Your task to perform on an android device: Open location settings Image 0: 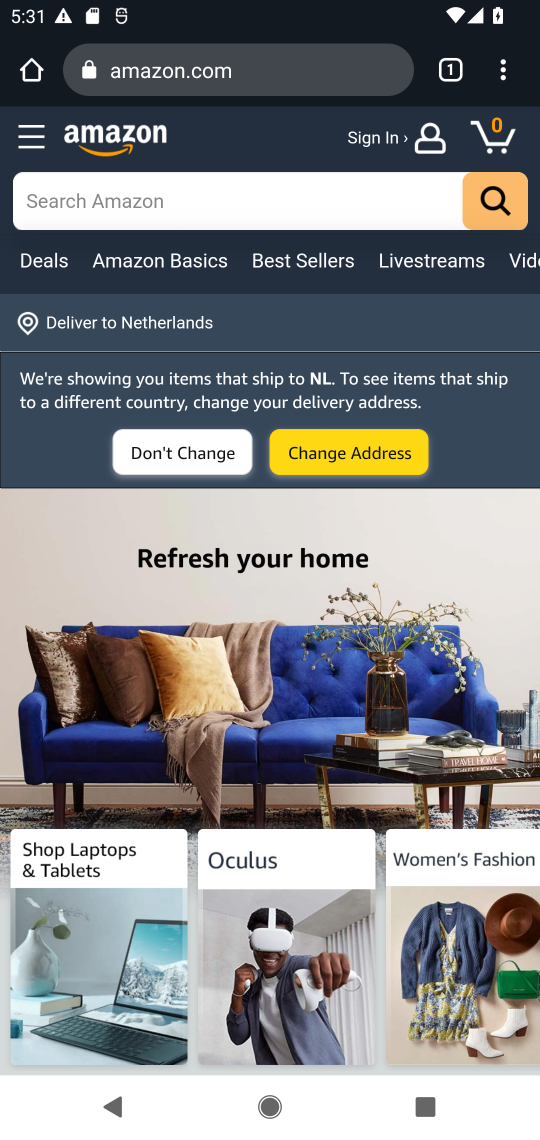
Step 0: press home button
Your task to perform on an android device: Open location settings Image 1: 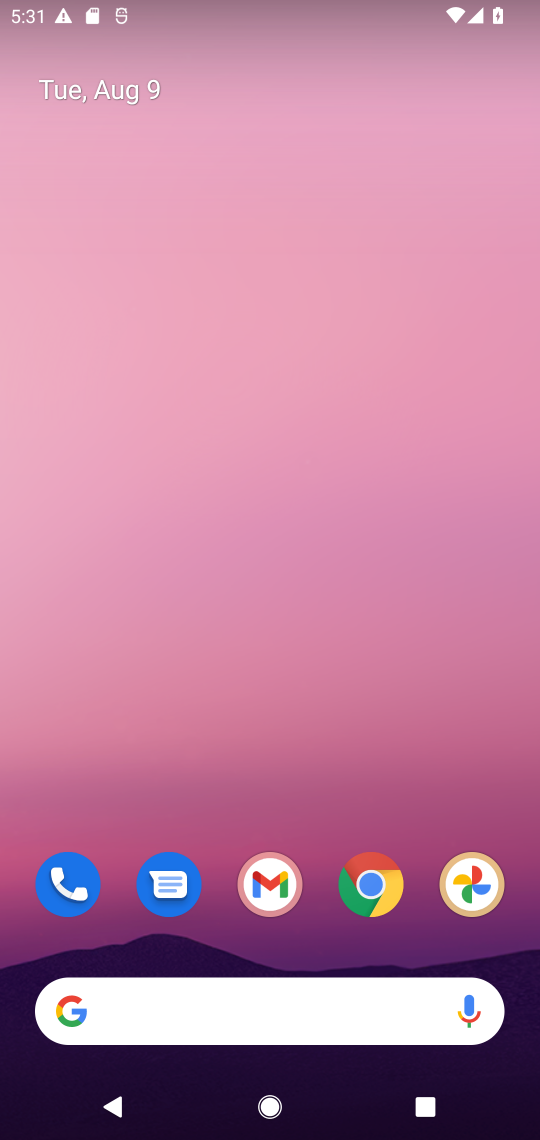
Step 1: drag from (295, 1013) to (360, 65)
Your task to perform on an android device: Open location settings Image 2: 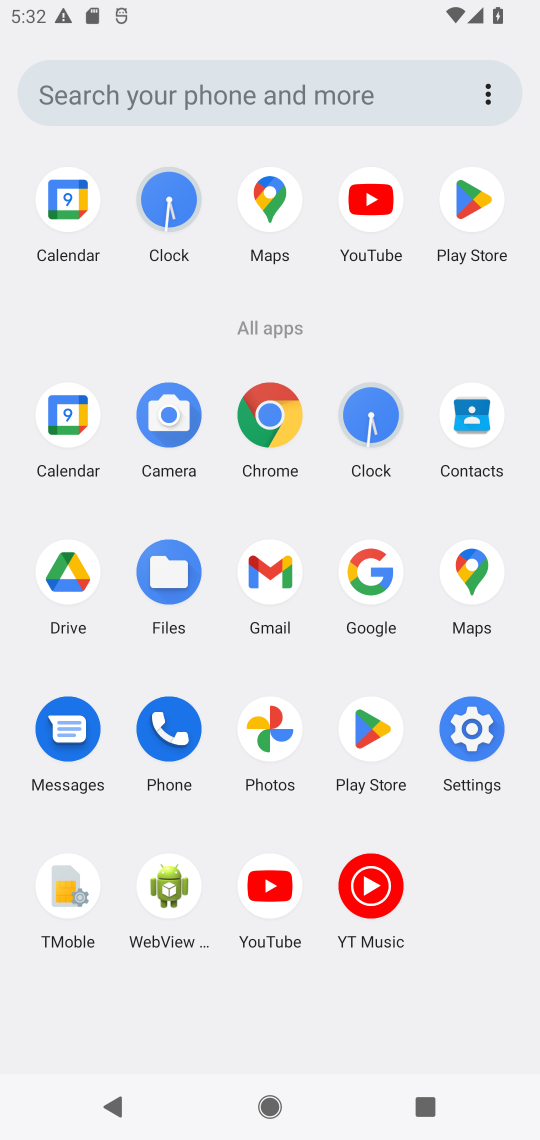
Step 2: click (473, 723)
Your task to perform on an android device: Open location settings Image 3: 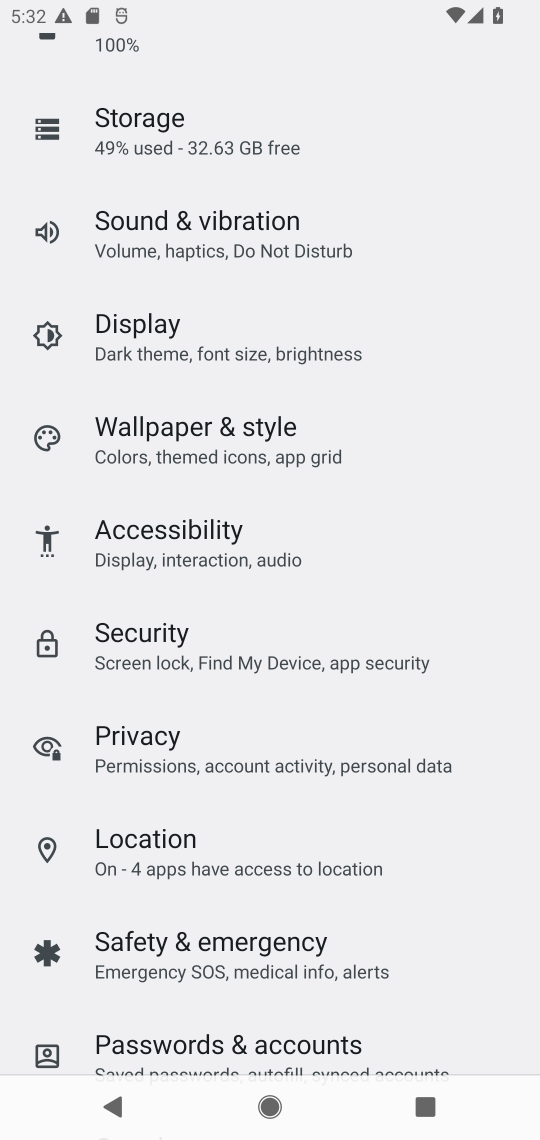
Step 3: click (275, 867)
Your task to perform on an android device: Open location settings Image 4: 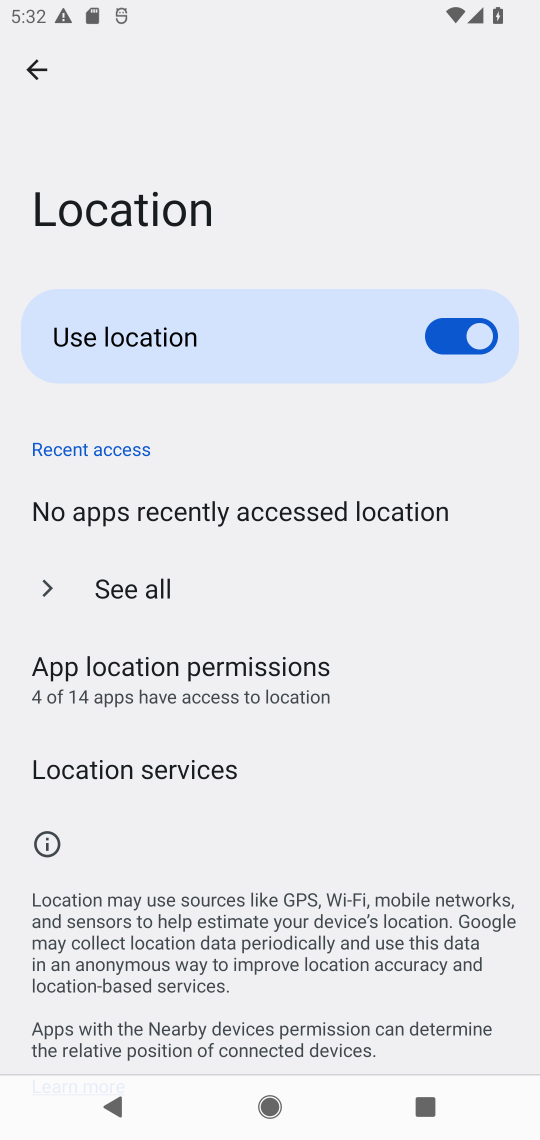
Step 4: task complete